Your task to perform on an android device: Open the calendar and show me this week's events Image 0: 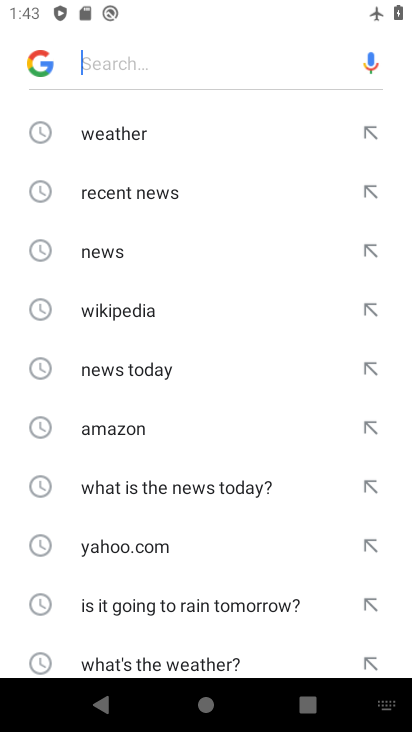
Step 0: press home button
Your task to perform on an android device: Open the calendar and show me this week's events Image 1: 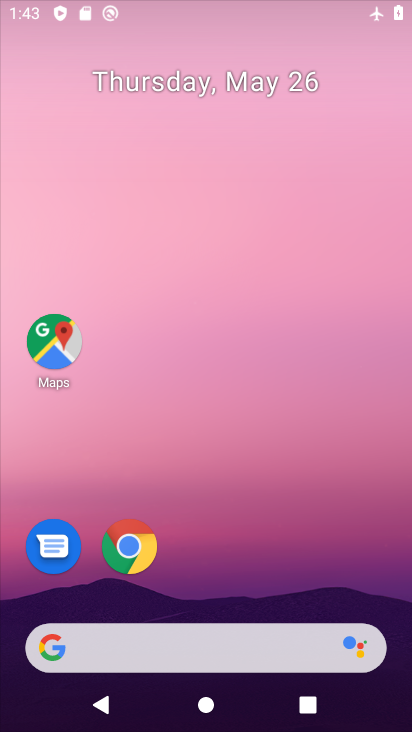
Step 1: drag from (210, 569) to (269, 99)
Your task to perform on an android device: Open the calendar and show me this week's events Image 2: 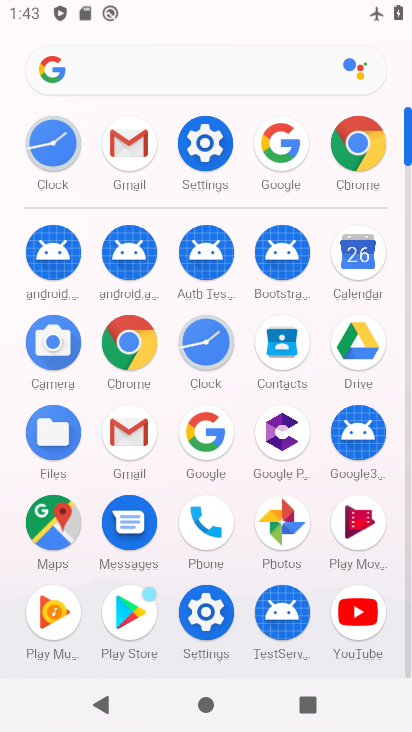
Step 2: click (365, 253)
Your task to perform on an android device: Open the calendar and show me this week's events Image 3: 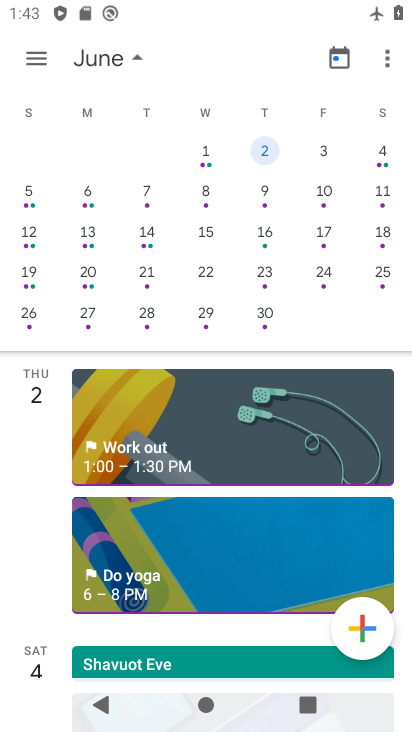
Step 3: drag from (94, 294) to (379, 293)
Your task to perform on an android device: Open the calendar and show me this week's events Image 4: 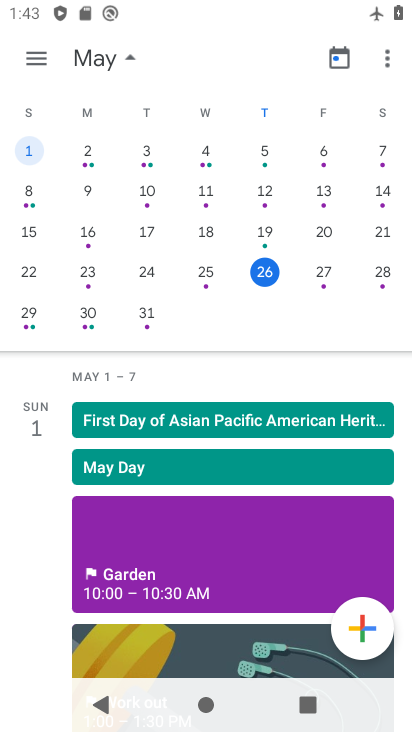
Step 4: click (331, 269)
Your task to perform on an android device: Open the calendar and show me this week's events Image 5: 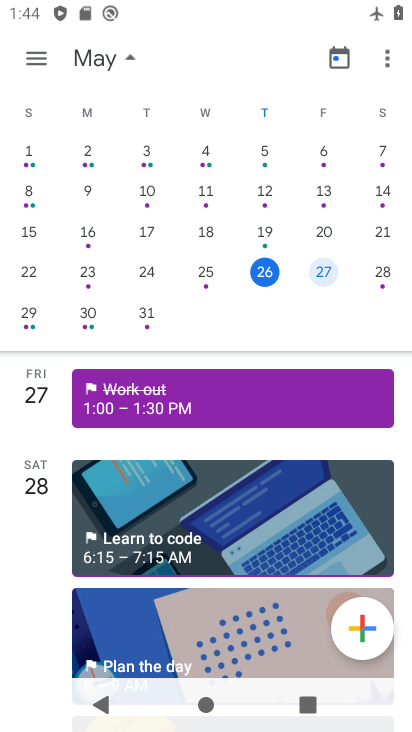
Step 5: task complete